Your task to perform on an android device: Open my contact list Image 0: 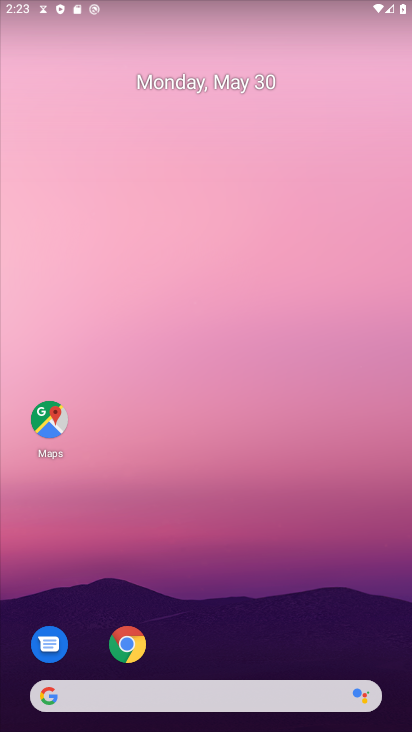
Step 0: drag from (311, 625) to (291, 73)
Your task to perform on an android device: Open my contact list Image 1: 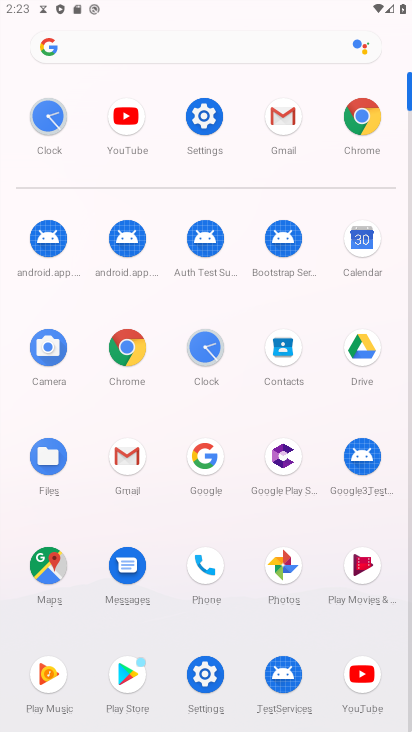
Step 1: click (283, 350)
Your task to perform on an android device: Open my contact list Image 2: 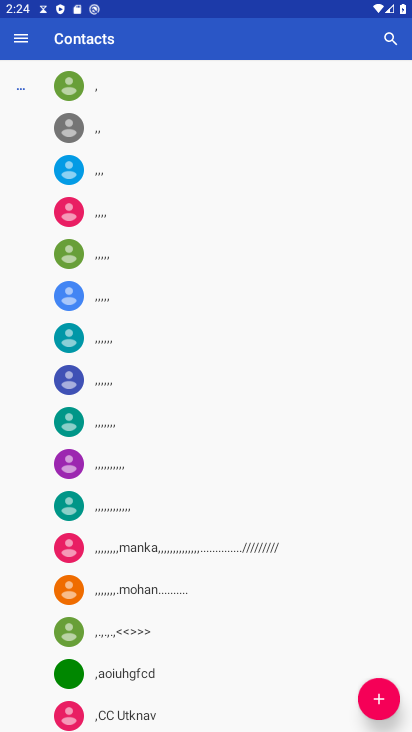
Step 2: task complete